Your task to perform on an android device: Go to Android settings Image 0: 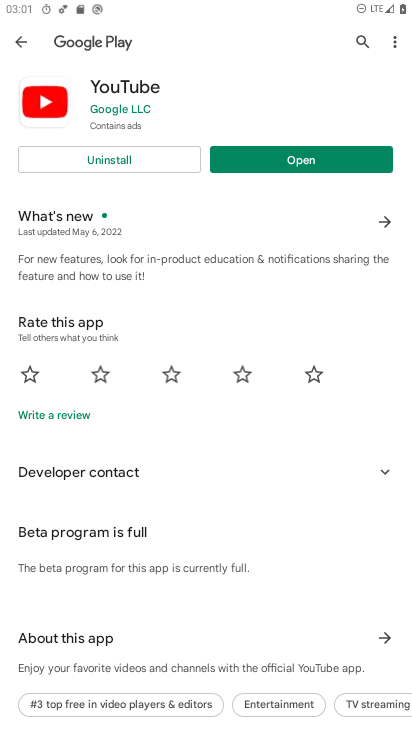
Step 0: press home button
Your task to perform on an android device: Go to Android settings Image 1: 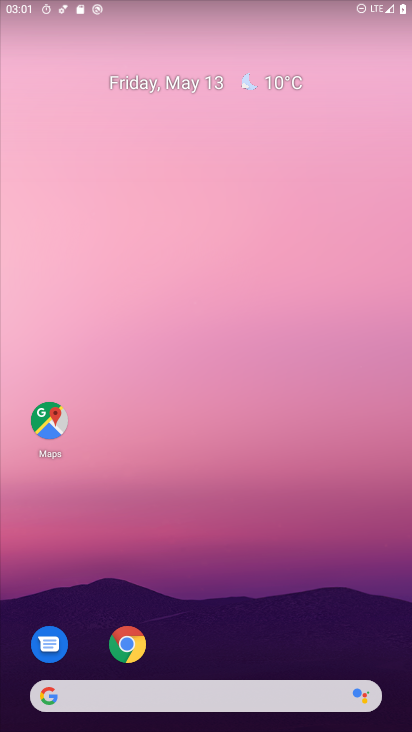
Step 1: drag from (185, 685) to (341, 1)
Your task to perform on an android device: Go to Android settings Image 2: 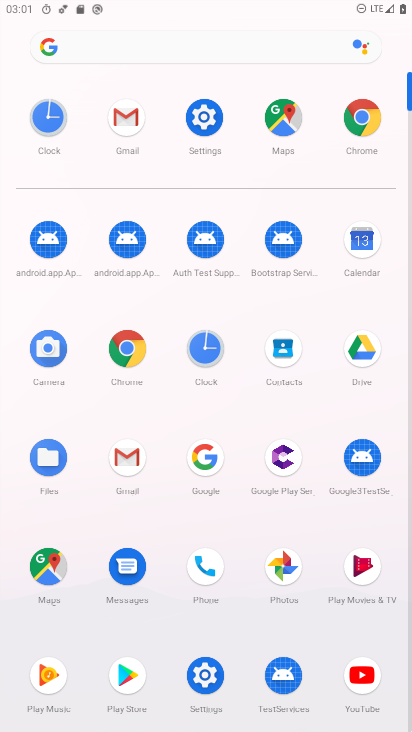
Step 2: click (198, 124)
Your task to perform on an android device: Go to Android settings Image 3: 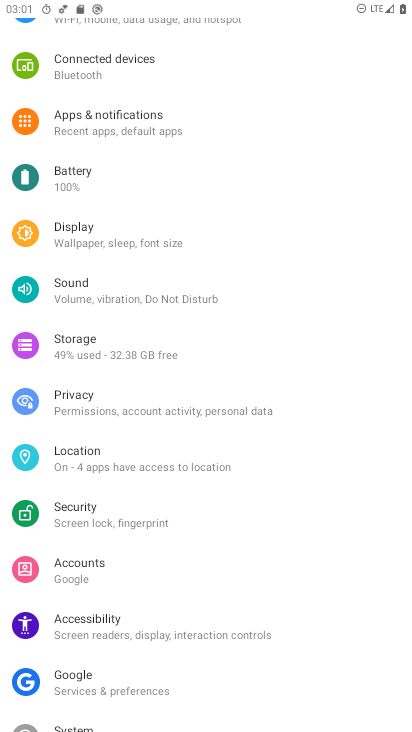
Step 3: drag from (180, 666) to (294, 89)
Your task to perform on an android device: Go to Android settings Image 4: 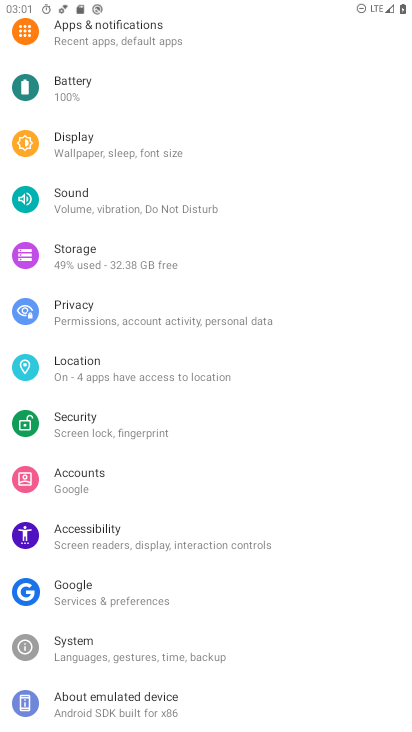
Step 4: click (92, 705)
Your task to perform on an android device: Go to Android settings Image 5: 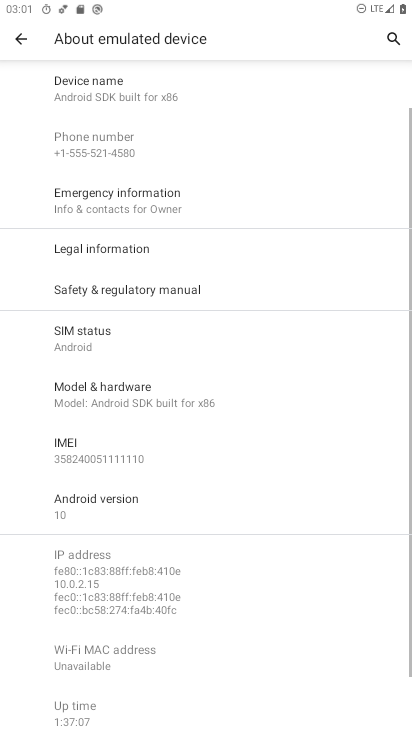
Step 5: click (150, 512)
Your task to perform on an android device: Go to Android settings Image 6: 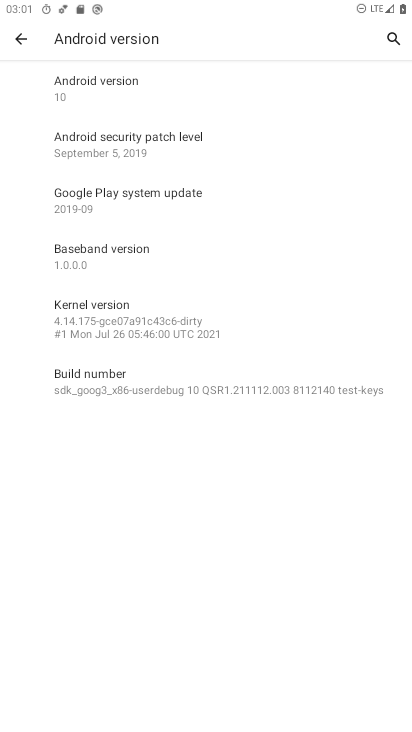
Step 6: task complete